Your task to perform on an android device: Open display settings Image 0: 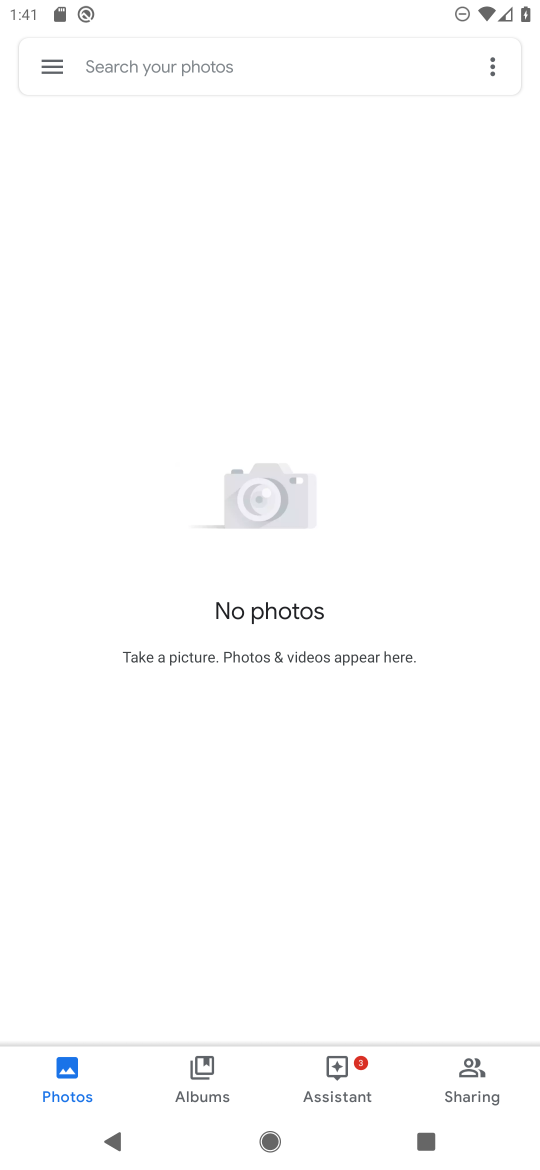
Step 0: press home button
Your task to perform on an android device: Open display settings Image 1: 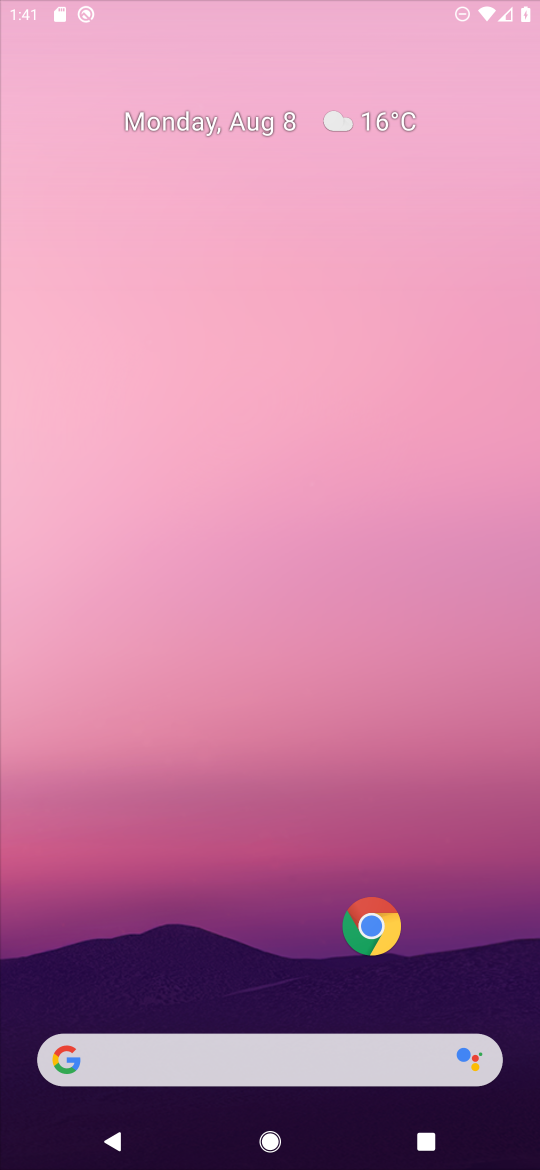
Step 1: drag from (298, 965) to (323, 181)
Your task to perform on an android device: Open display settings Image 2: 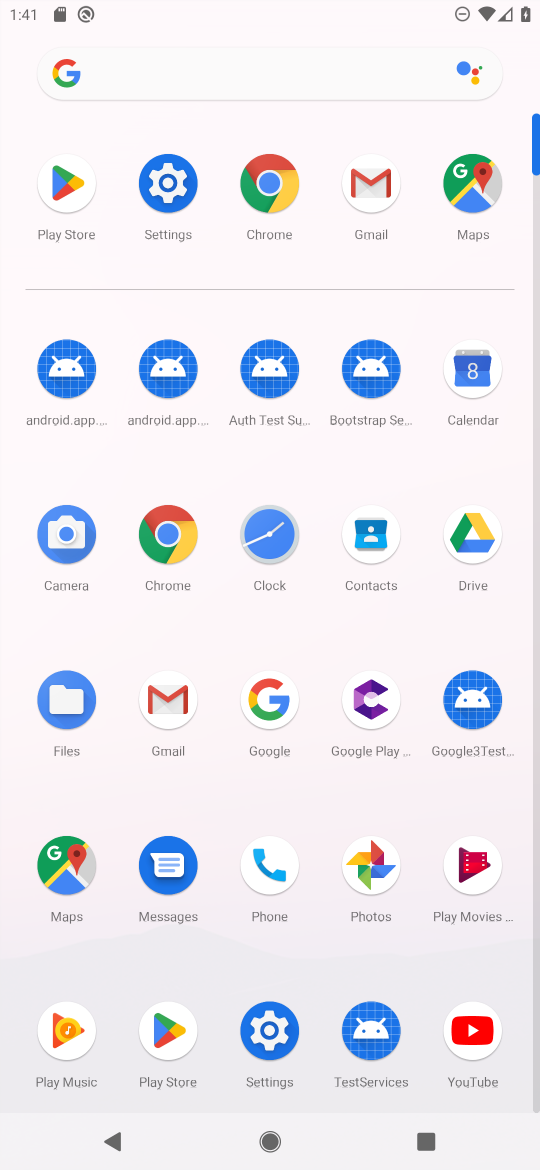
Step 2: click (177, 179)
Your task to perform on an android device: Open display settings Image 3: 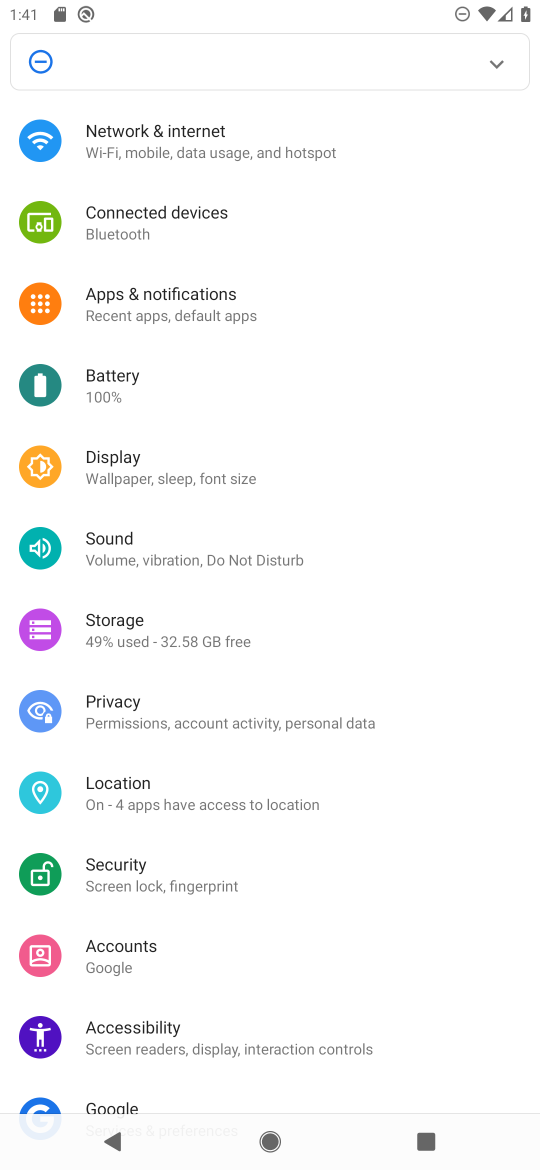
Step 3: click (154, 472)
Your task to perform on an android device: Open display settings Image 4: 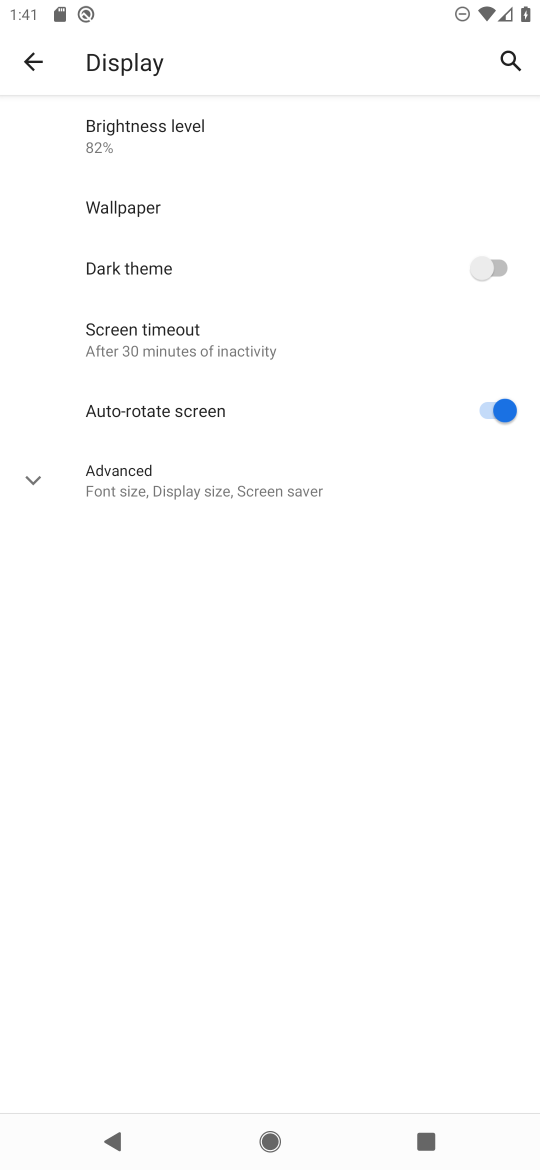
Step 4: task complete